Your task to perform on an android device: Open calendar and show me the second week of next month Image 0: 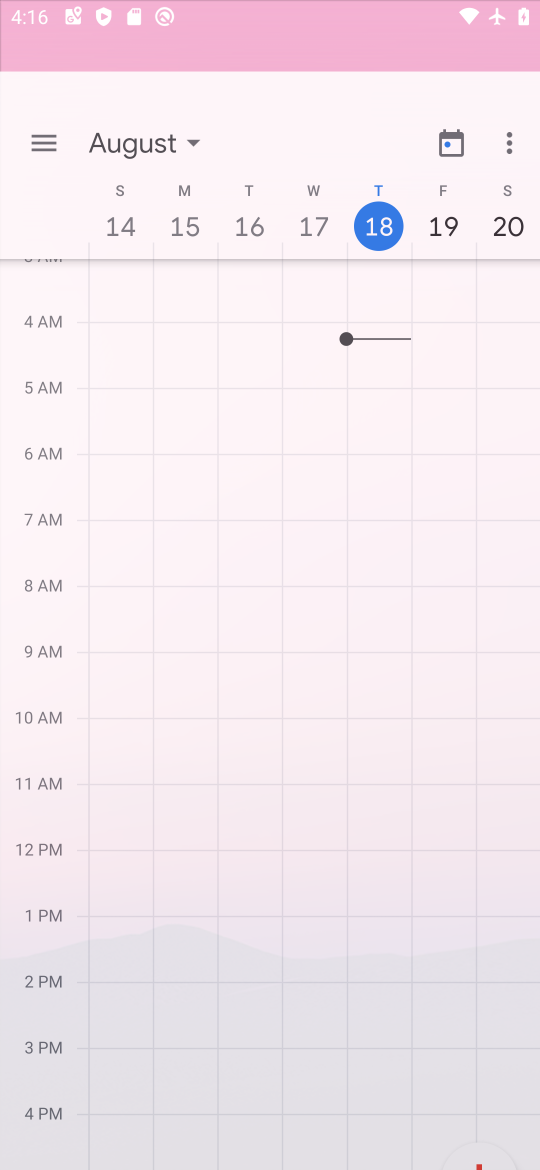
Step 0: press home button
Your task to perform on an android device: Open calendar and show me the second week of next month Image 1: 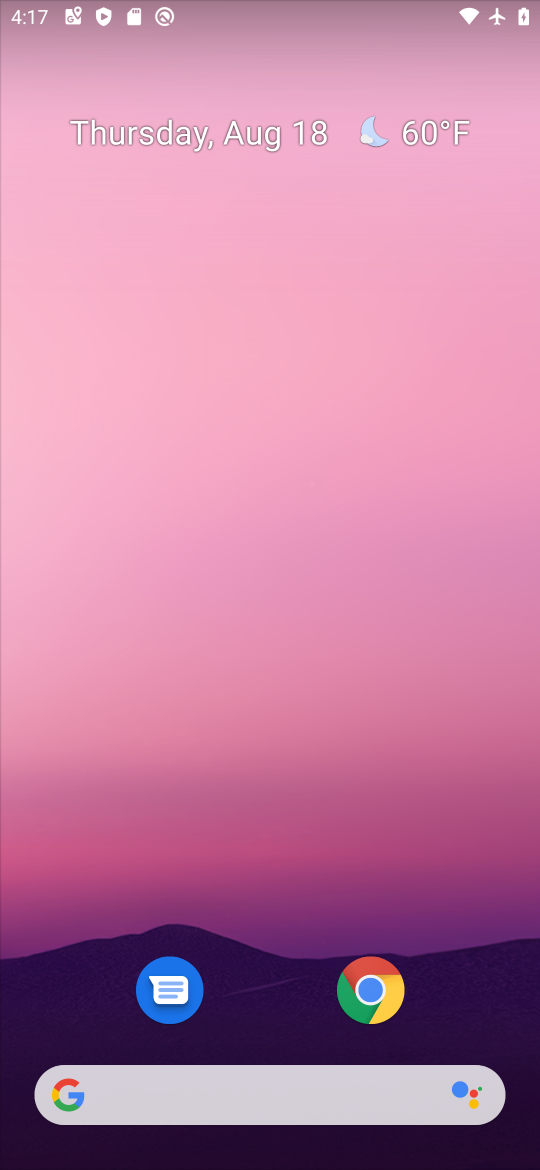
Step 1: drag from (236, 897) to (231, 194)
Your task to perform on an android device: Open calendar and show me the second week of next month Image 2: 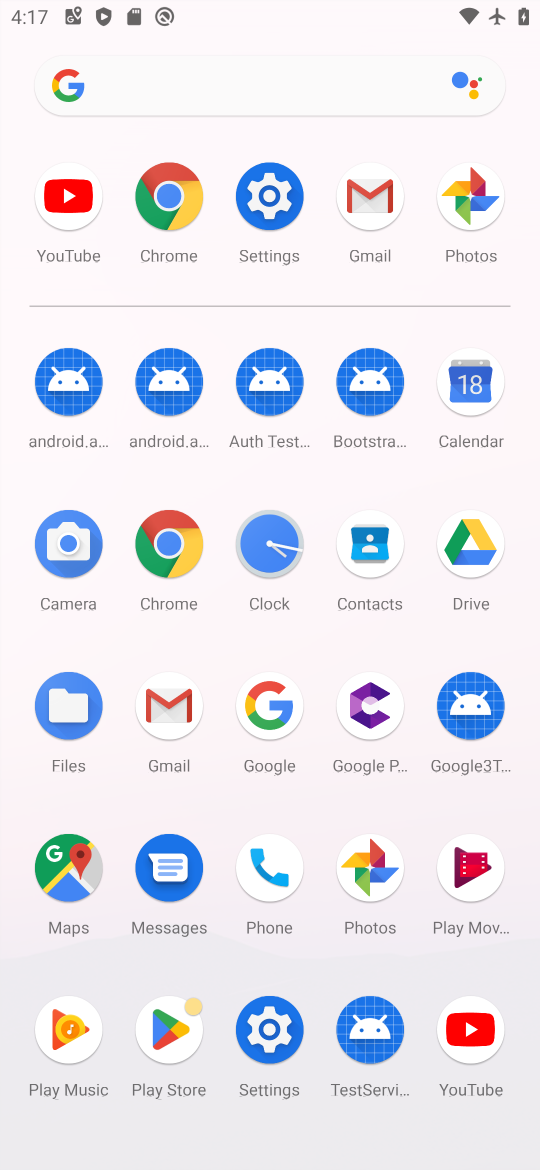
Step 2: click (461, 369)
Your task to perform on an android device: Open calendar and show me the second week of next month Image 3: 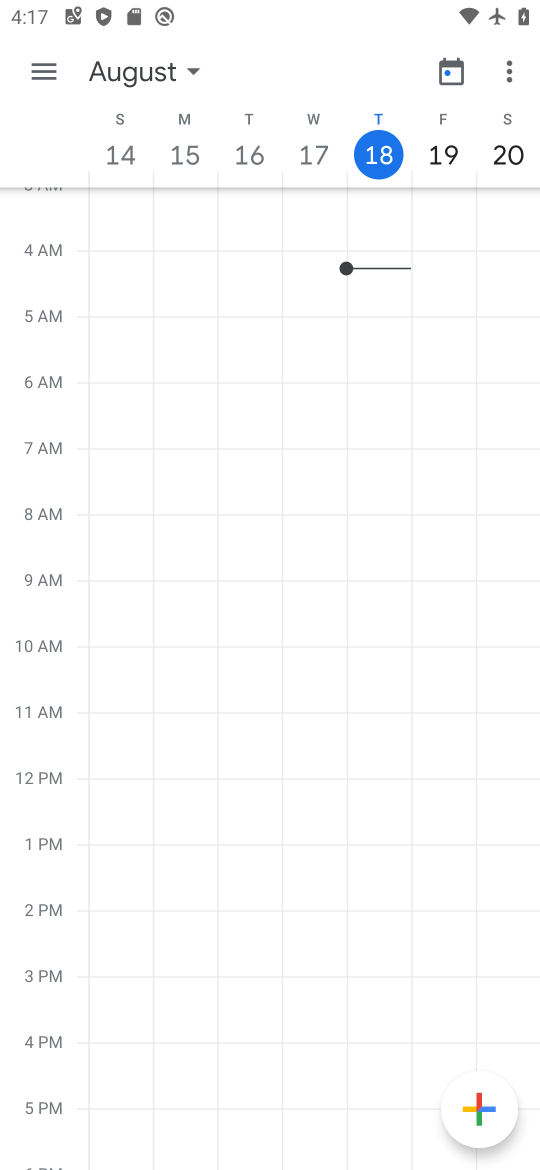
Step 3: click (137, 64)
Your task to perform on an android device: Open calendar and show me the second week of next month Image 4: 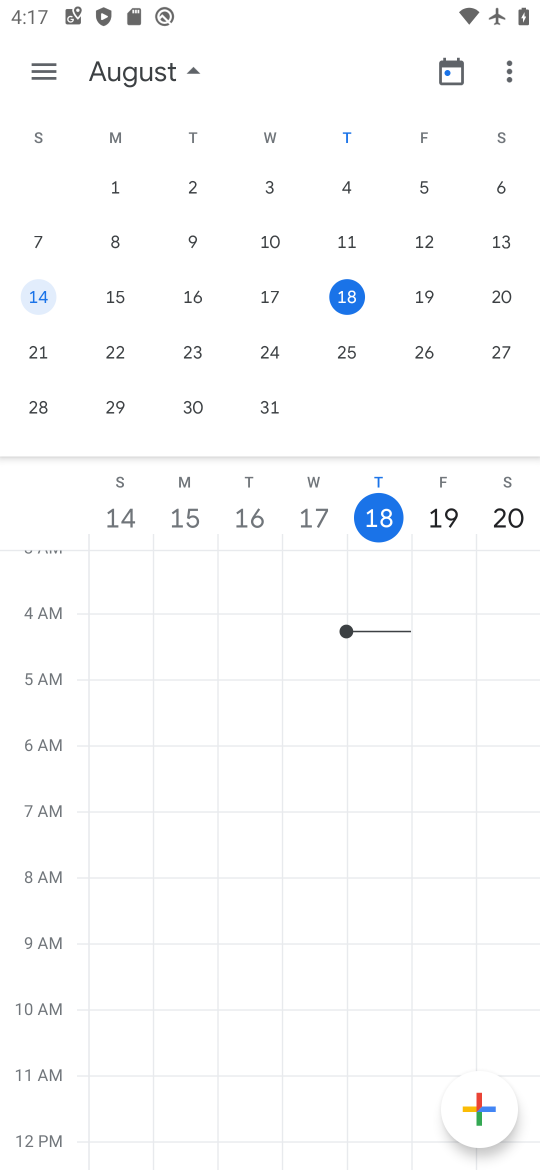
Step 4: drag from (473, 292) to (69, 280)
Your task to perform on an android device: Open calendar and show me the second week of next month Image 5: 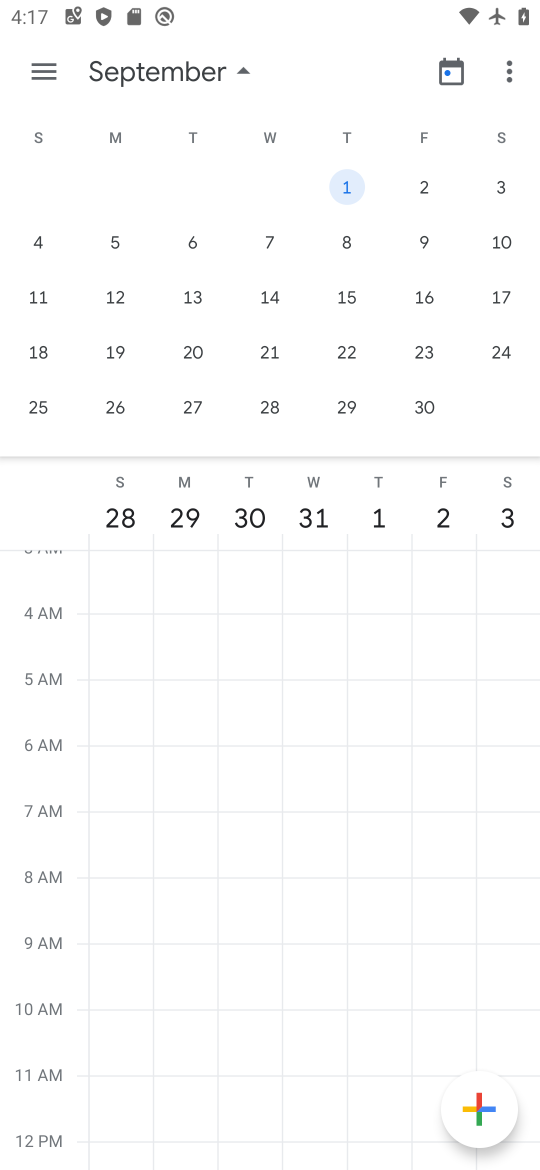
Step 5: click (197, 286)
Your task to perform on an android device: Open calendar and show me the second week of next month Image 6: 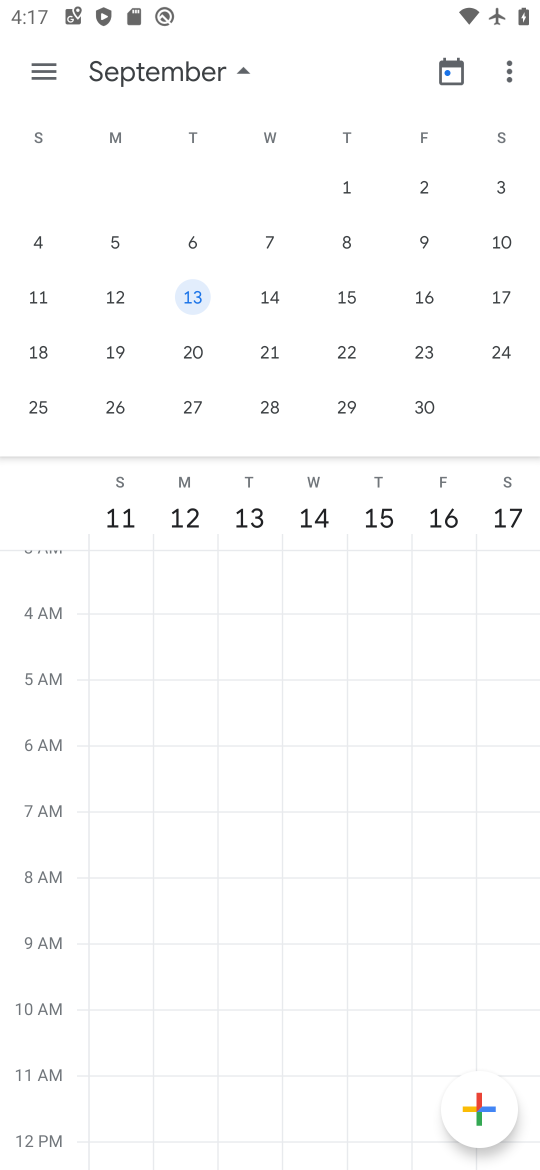
Step 6: task complete